Your task to perform on an android device: Search for the best selling phone on AliExpress Image 0: 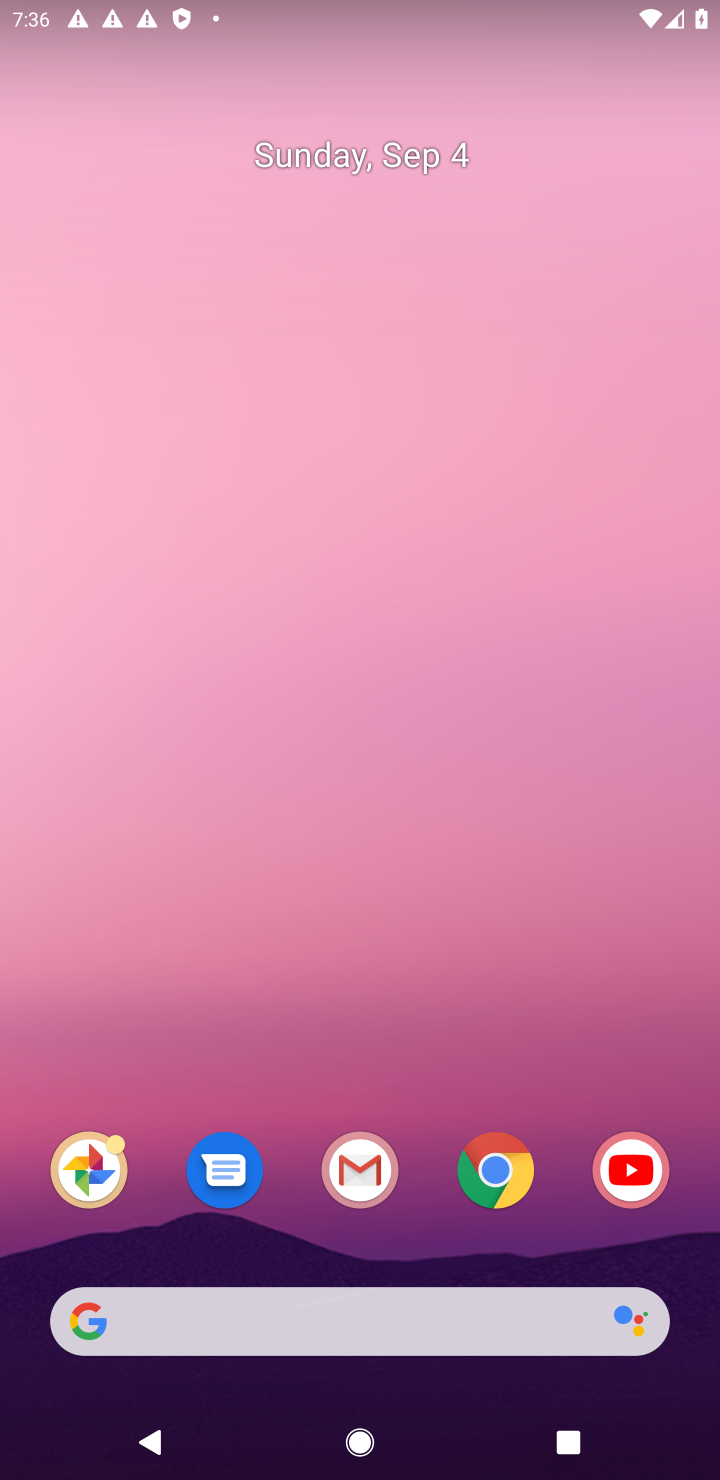
Step 0: click (476, 1183)
Your task to perform on an android device: Search for the best selling phone on AliExpress Image 1: 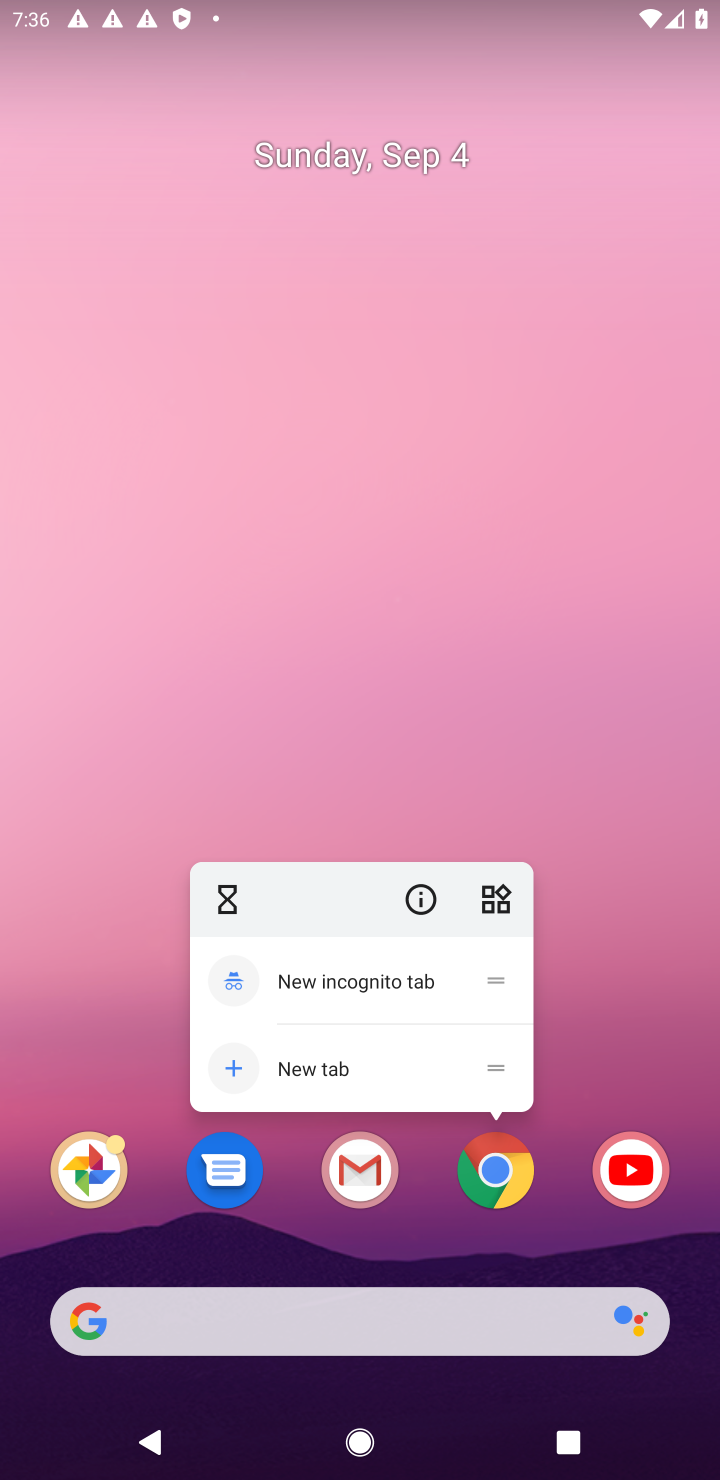
Step 1: click (473, 1149)
Your task to perform on an android device: Search for the best selling phone on AliExpress Image 2: 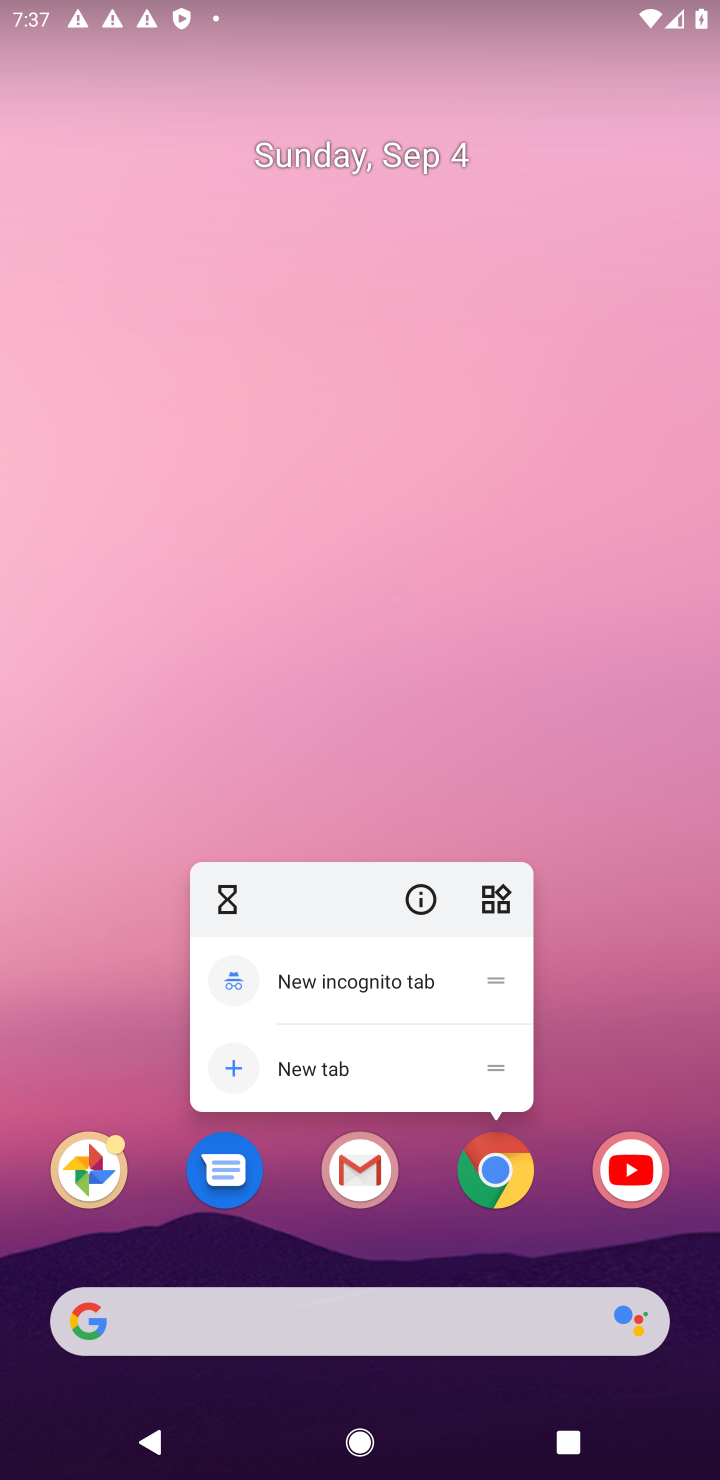
Step 2: click (473, 1149)
Your task to perform on an android device: Search for the best selling phone on AliExpress Image 3: 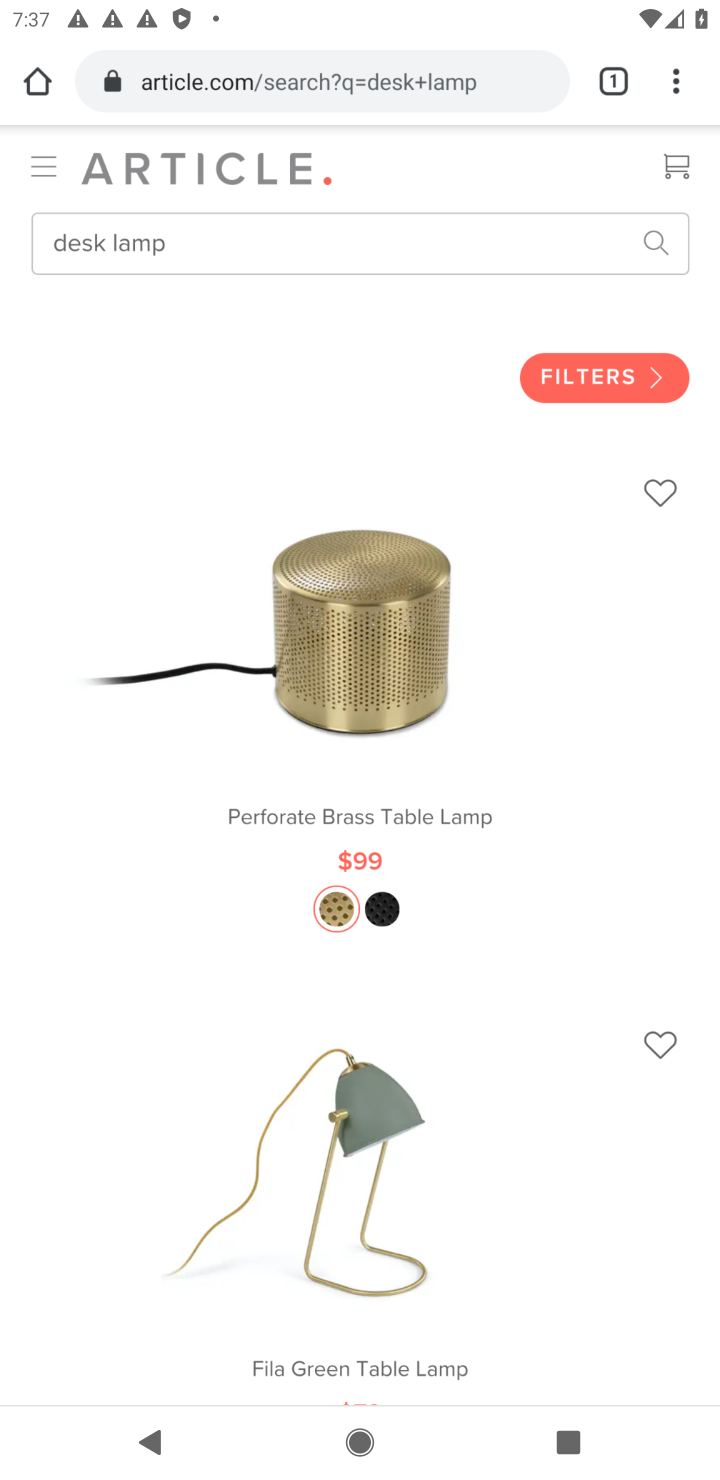
Step 3: click (473, 1149)
Your task to perform on an android device: Search for the best selling phone on AliExpress Image 4: 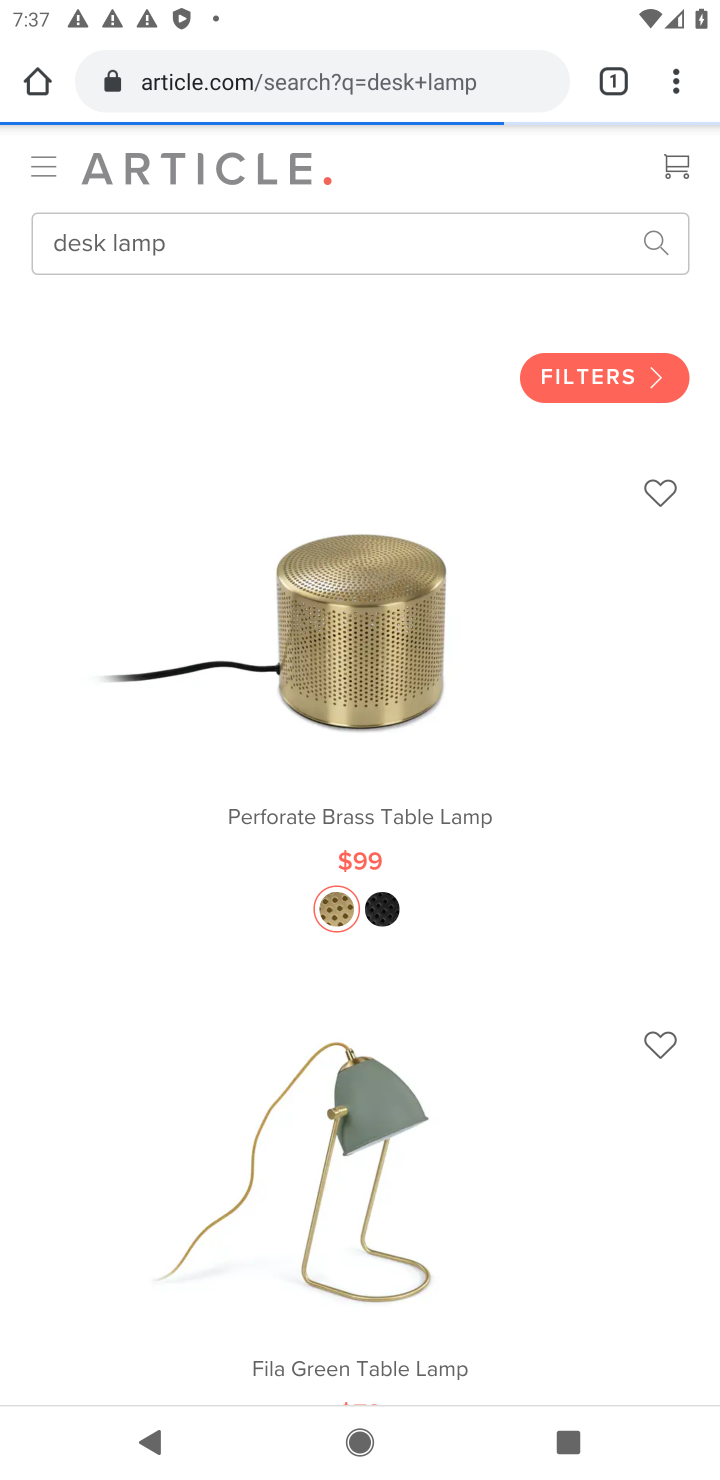
Step 4: click (356, 87)
Your task to perform on an android device: Search for the best selling phone on AliExpress Image 5: 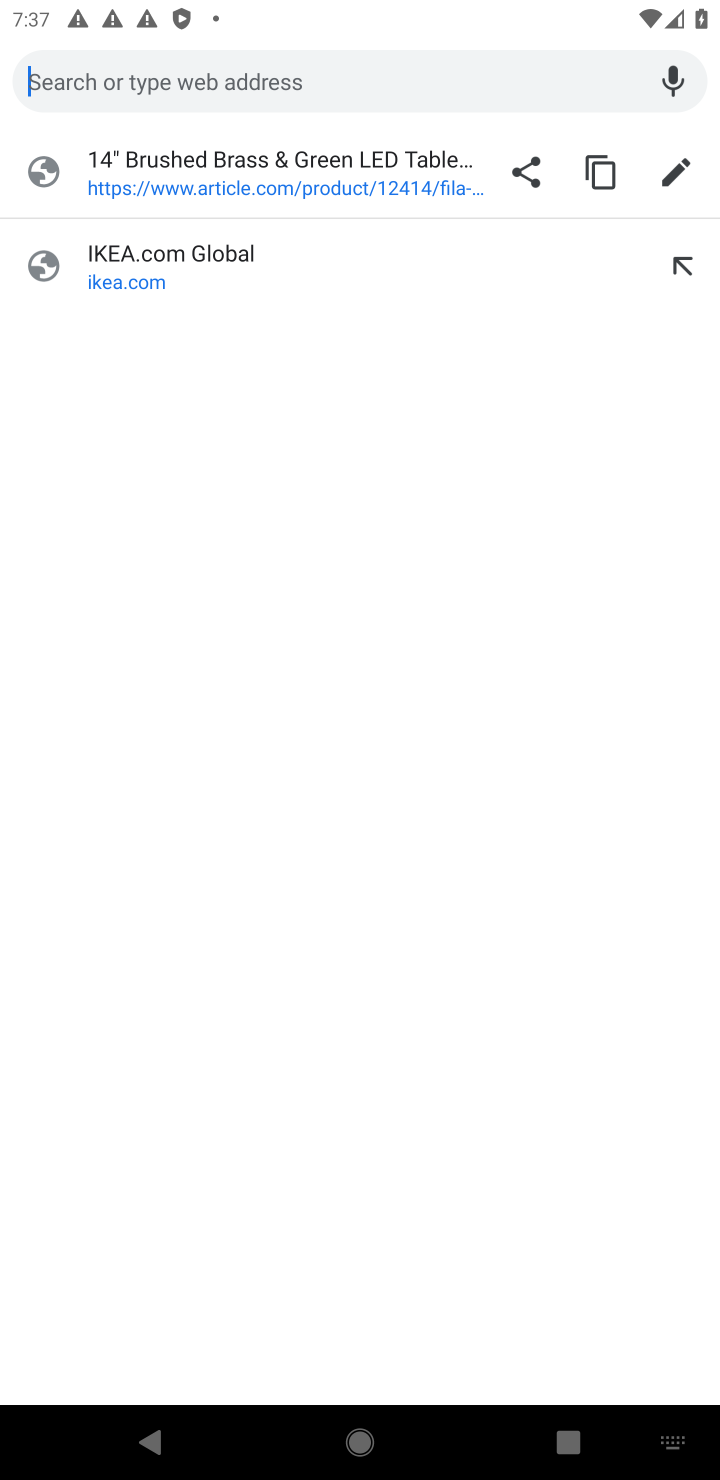
Step 5: type "AliExpress"
Your task to perform on an android device: Search for the best selling phone on AliExpress Image 6: 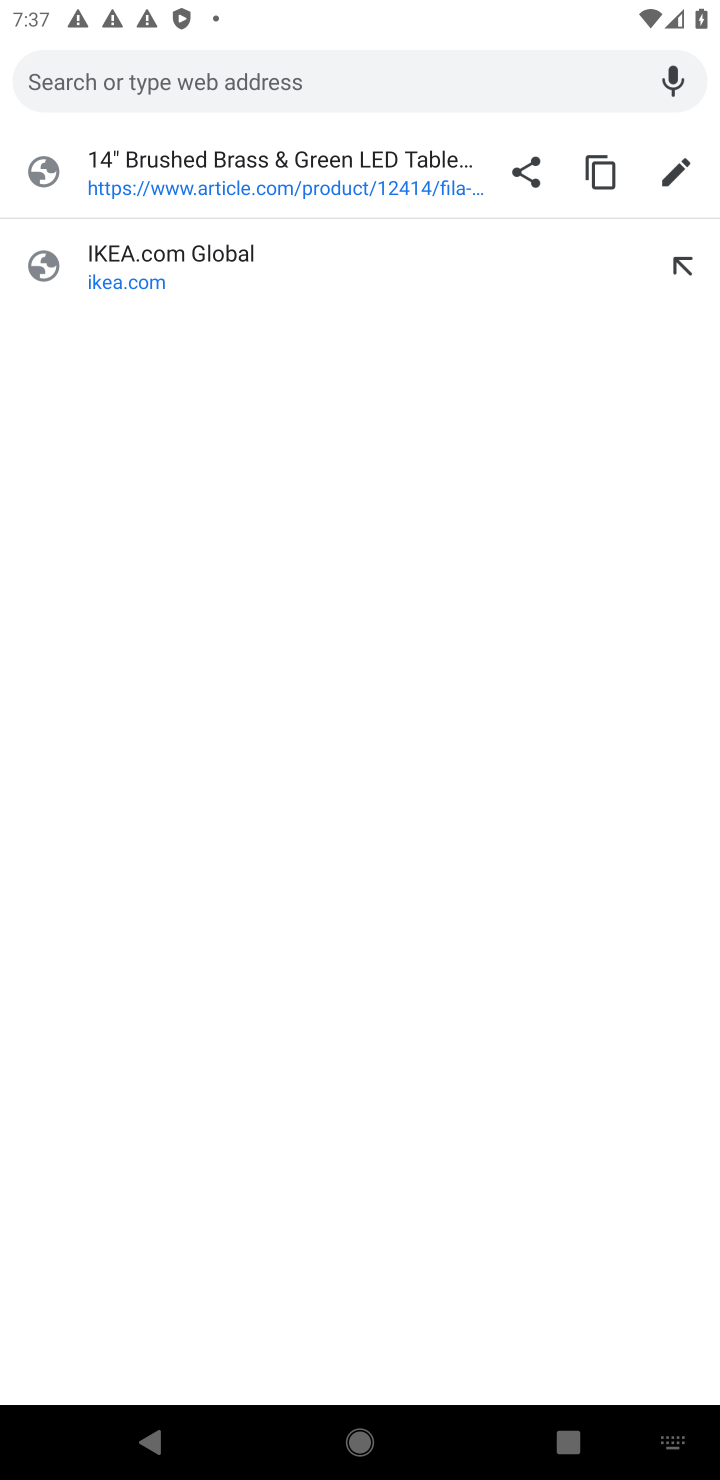
Step 6: click (537, 81)
Your task to perform on an android device: Search for the best selling phone on AliExpress Image 7: 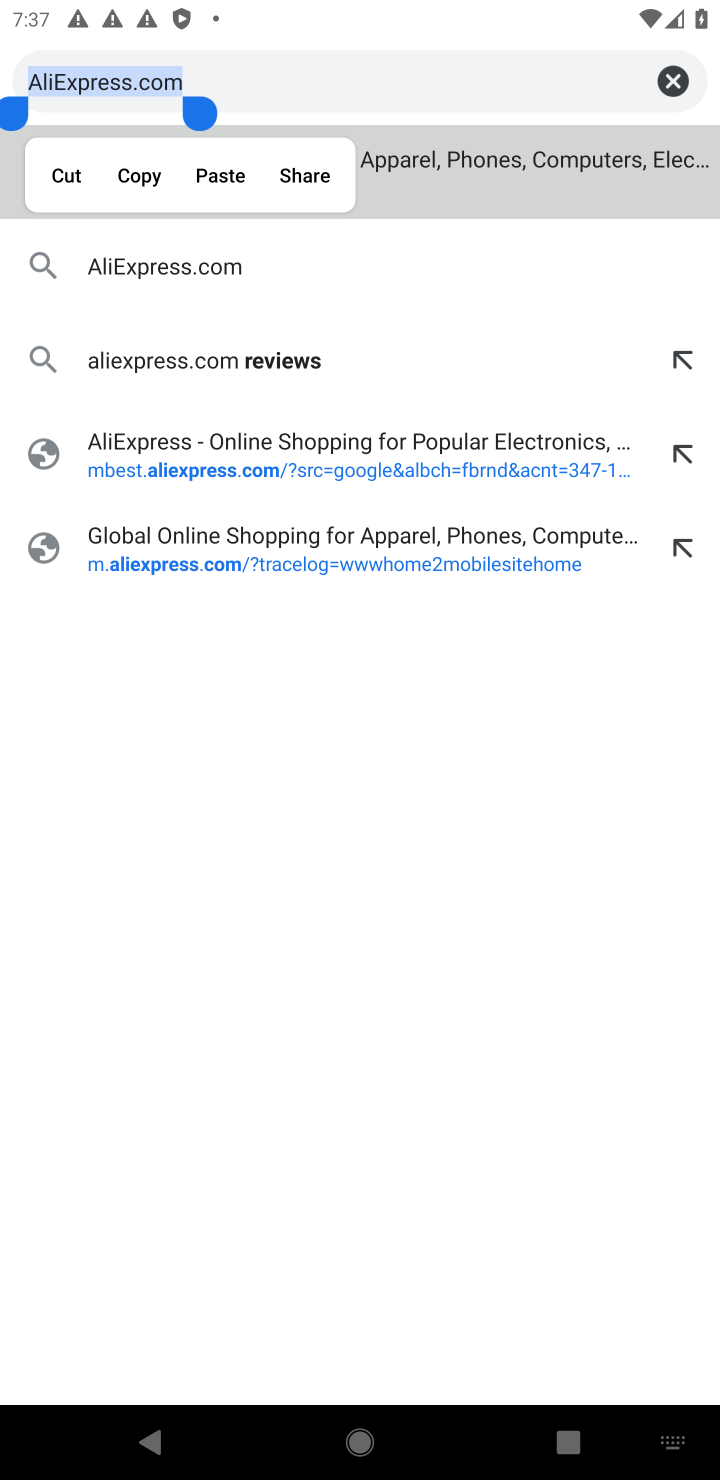
Step 7: click (234, 262)
Your task to perform on an android device: Search for the best selling phone on AliExpress Image 8: 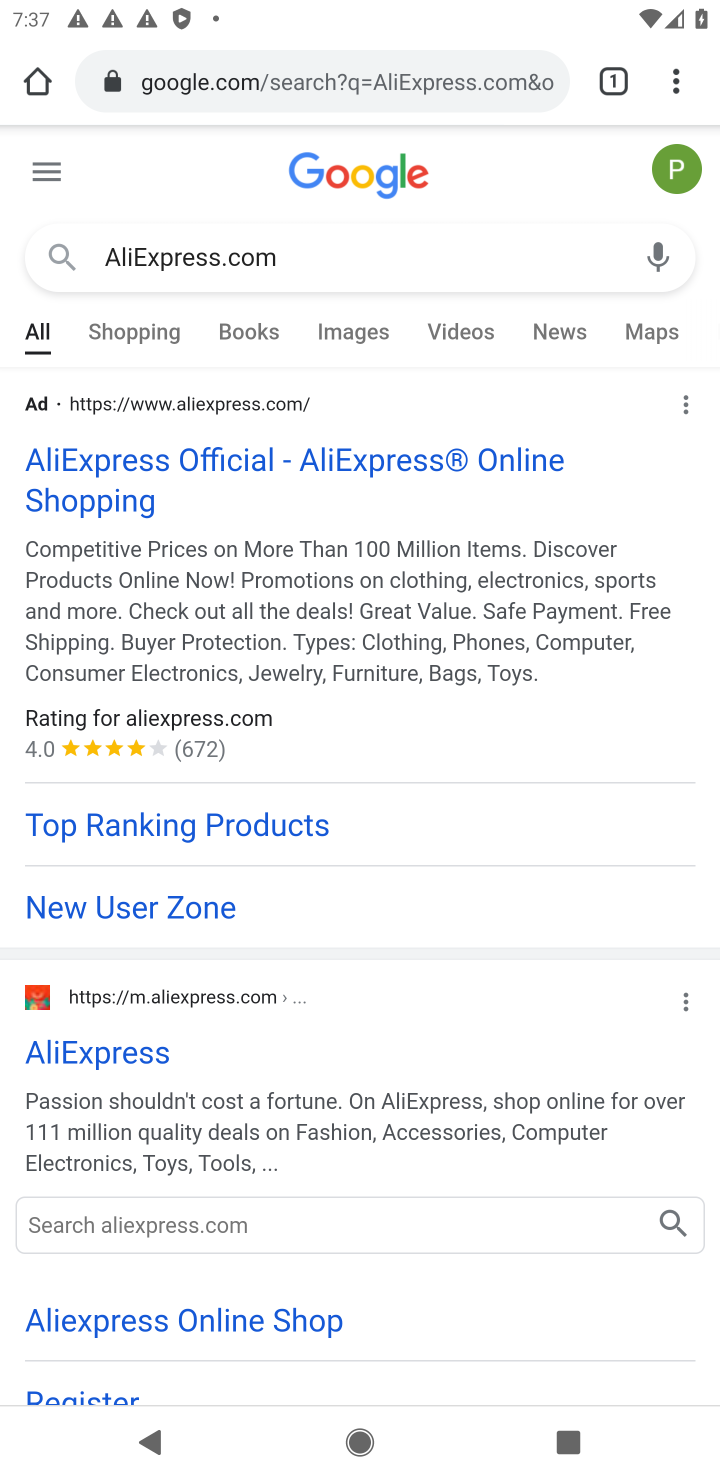
Step 8: click (105, 495)
Your task to perform on an android device: Search for the best selling phone on AliExpress Image 9: 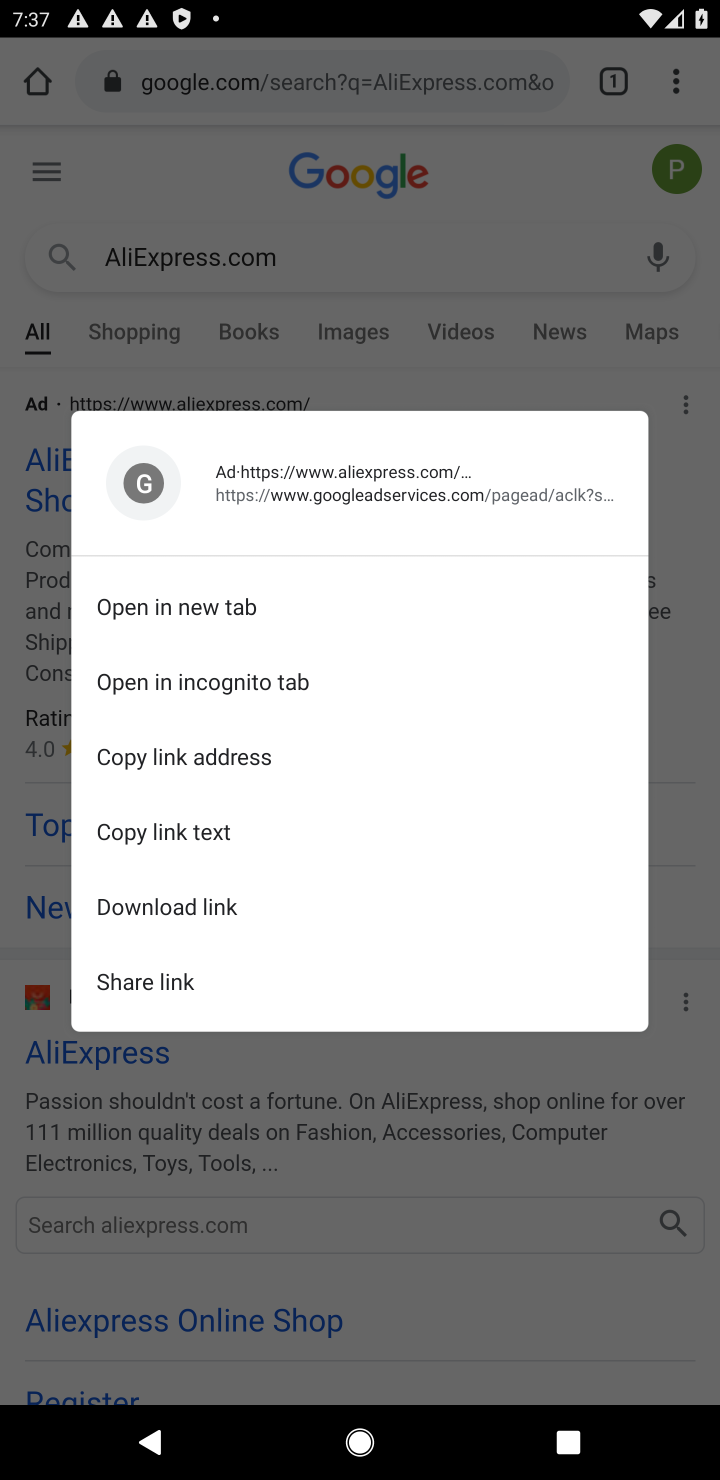
Step 9: click (39, 474)
Your task to perform on an android device: Search for the best selling phone on AliExpress Image 10: 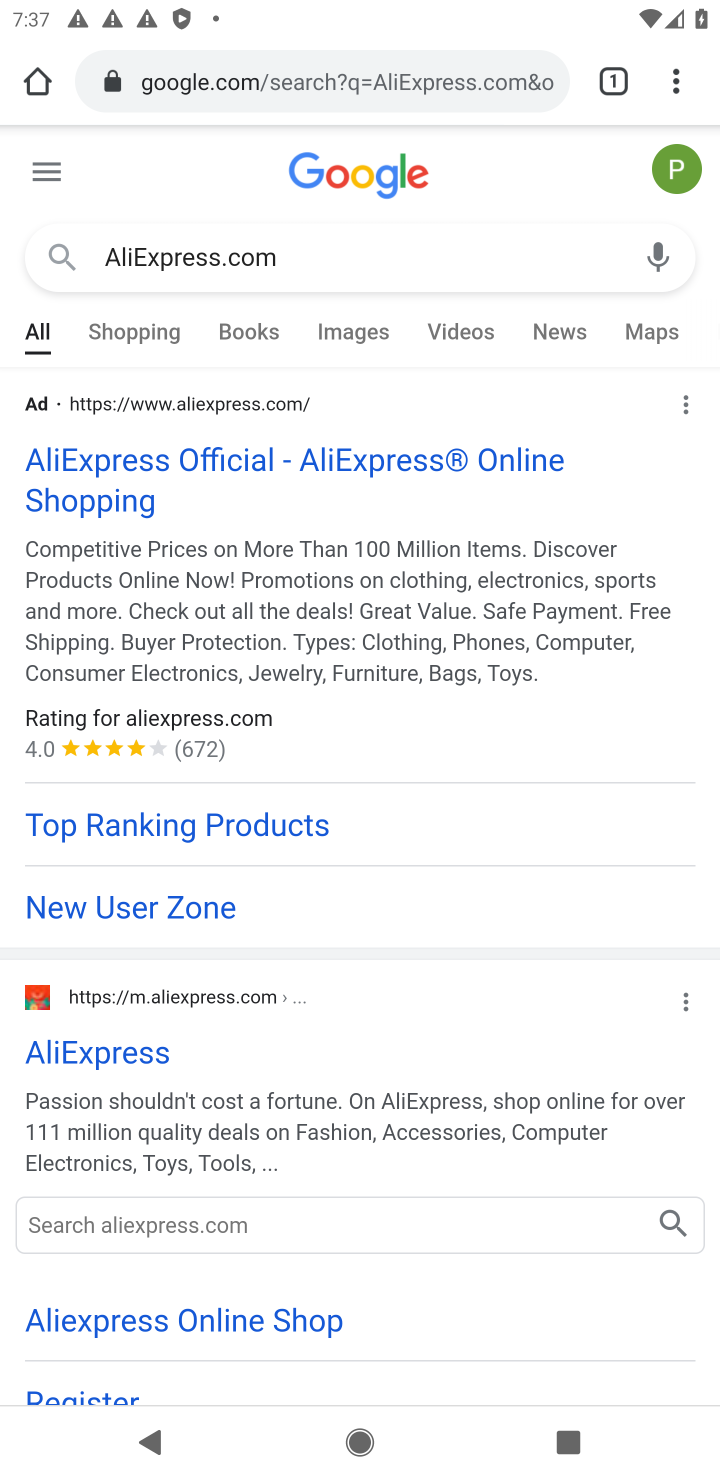
Step 10: click (149, 487)
Your task to perform on an android device: Search for the best selling phone on AliExpress Image 11: 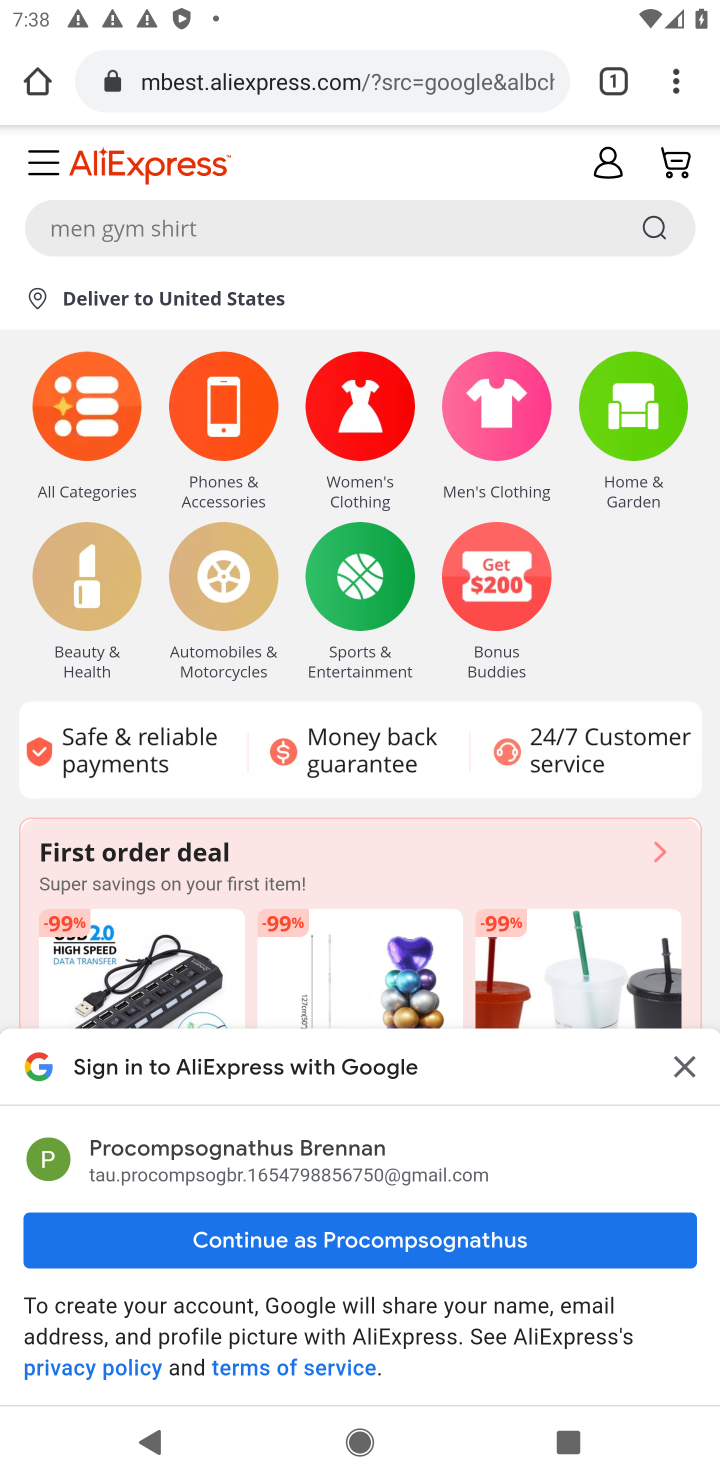
Step 11: type "the best selling phone"
Your task to perform on an android device: Search for the best selling phone on AliExpress Image 12: 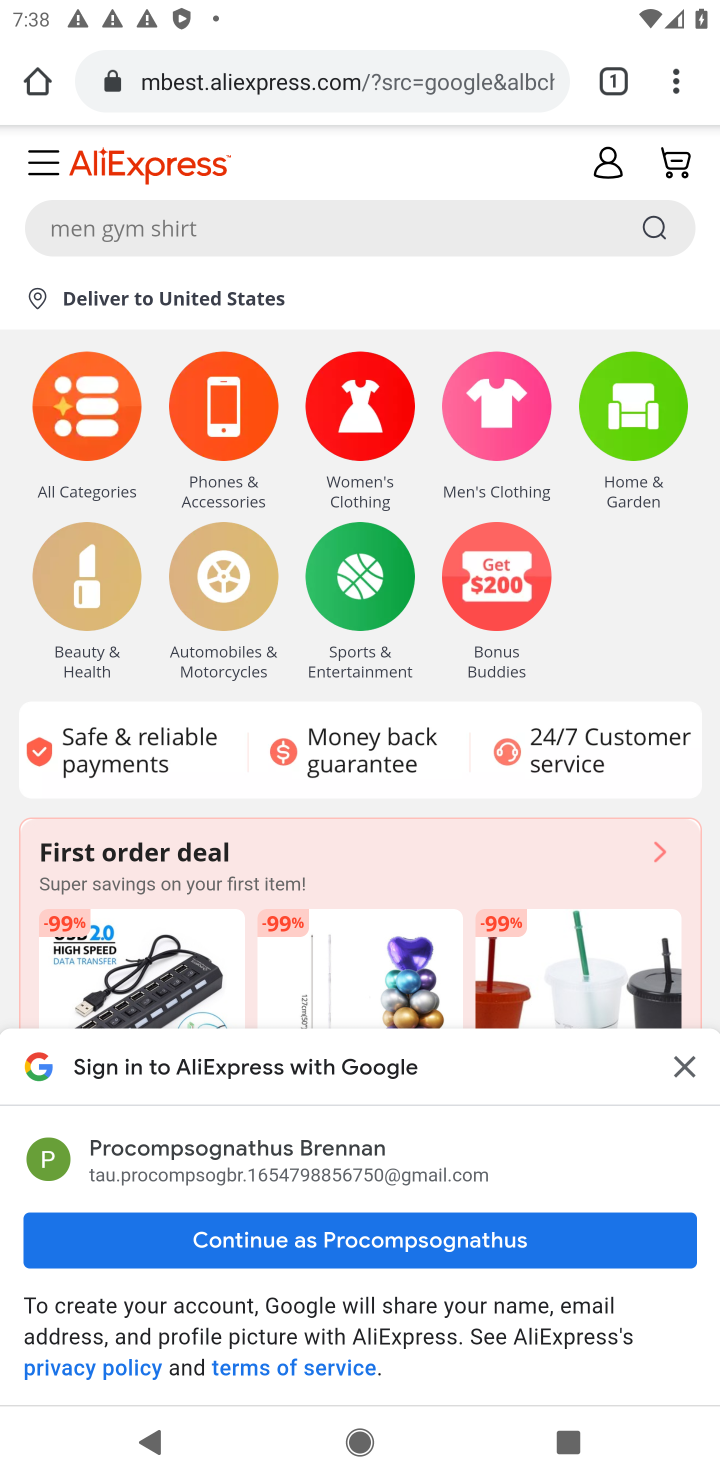
Step 12: click (75, 217)
Your task to perform on an android device: Search for the best selling phone on AliExpress Image 13: 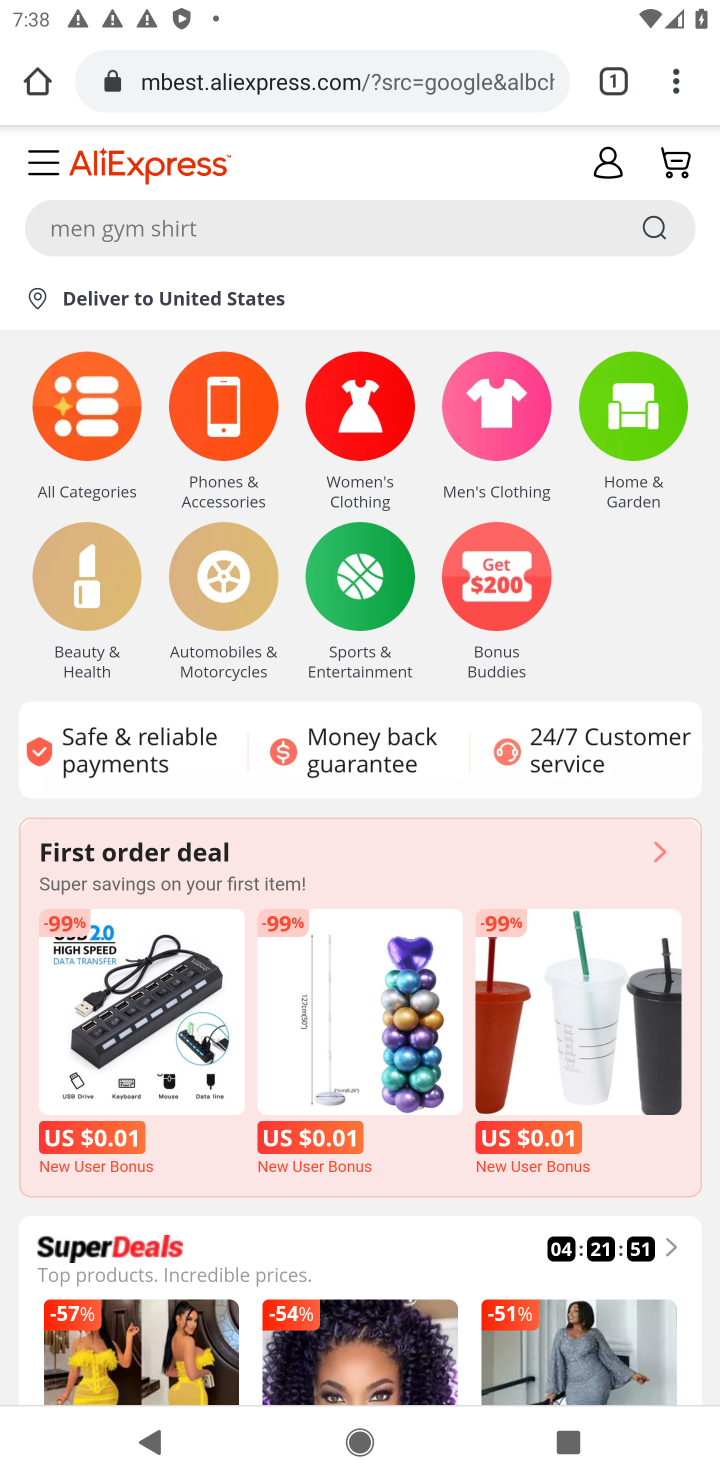
Step 13: click (149, 222)
Your task to perform on an android device: Search for the best selling phone on AliExpress Image 14: 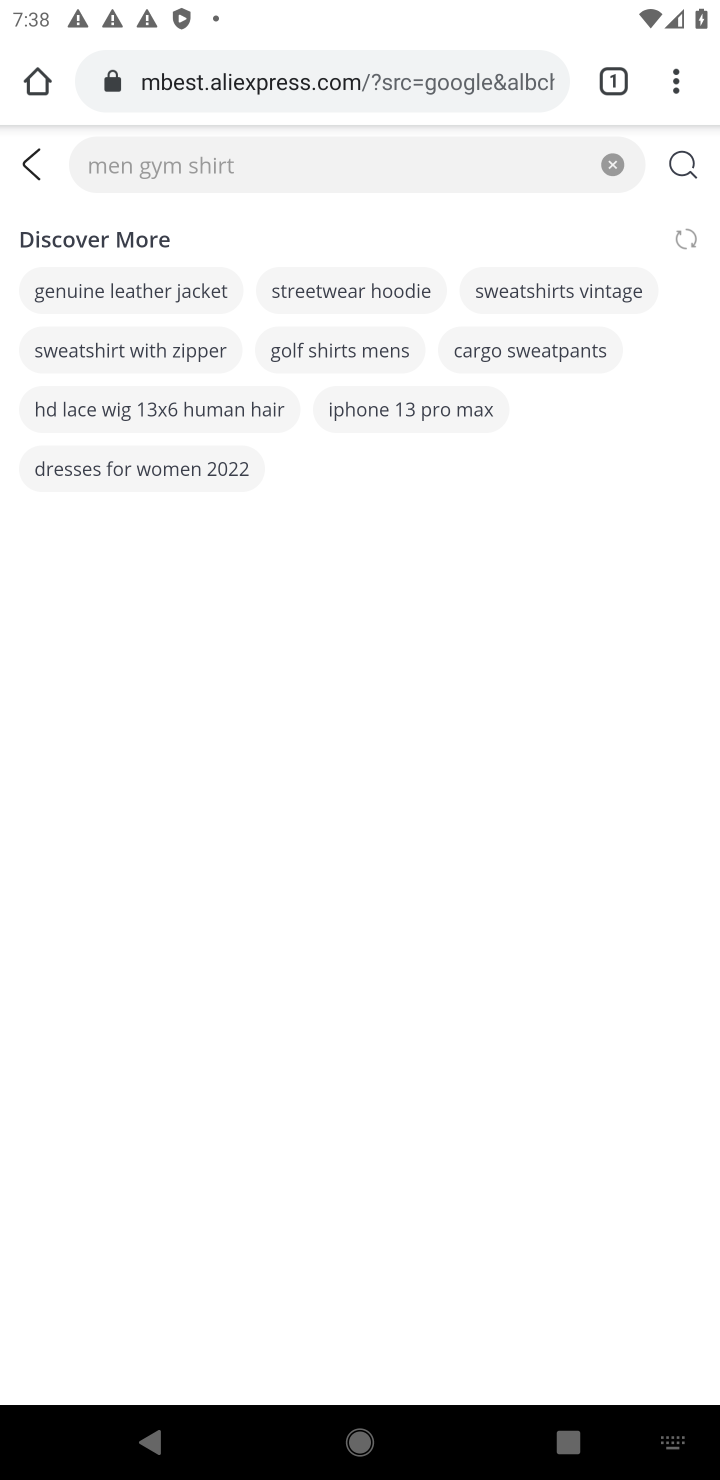
Step 14: click (149, 222)
Your task to perform on an android device: Search for the best selling phone on AliExpress Image 15: 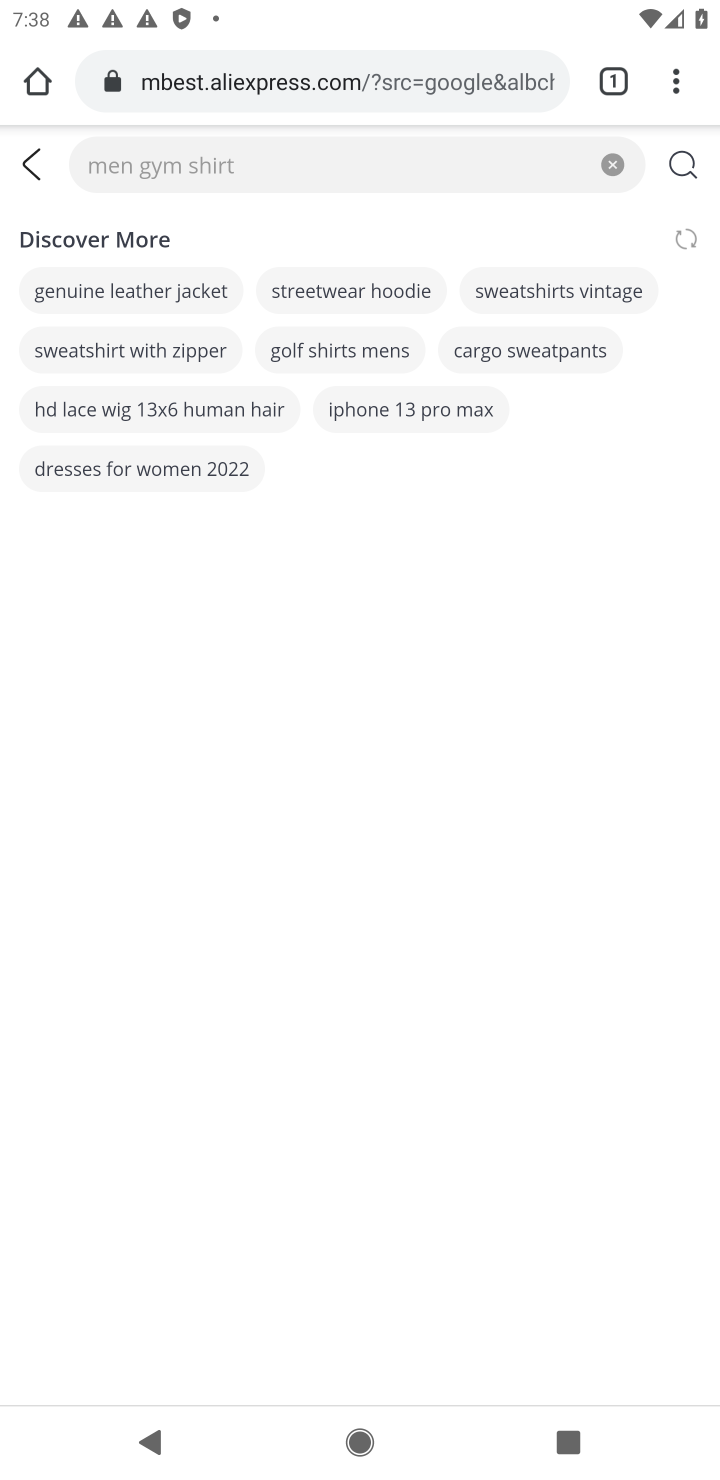
Step 15: type "the best selling phone"
Your task to perform on an android device: Search for the best selling phone on AliExpress Image 16: 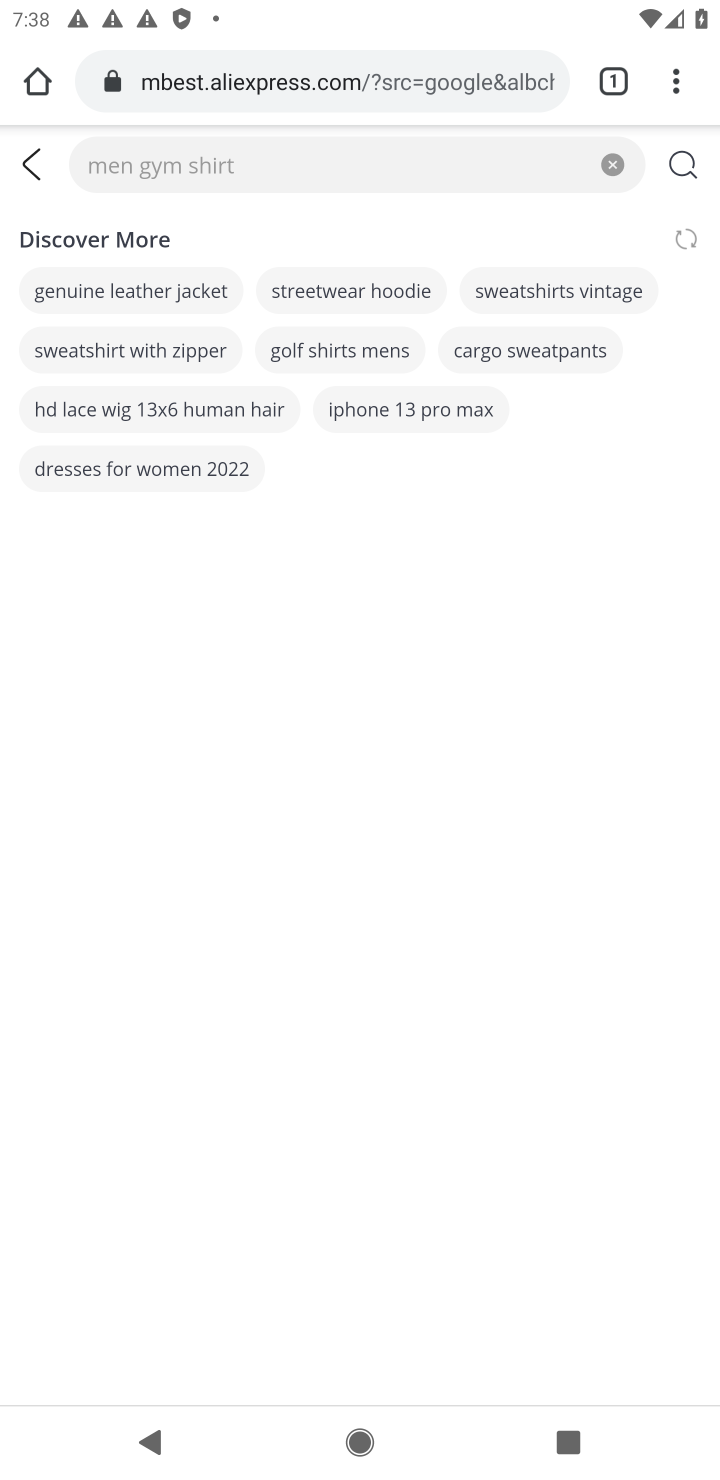
Step 16: click (390, 152)
Your task to perform on an android device: Search for the best selling phone on AliExpress Image 17: 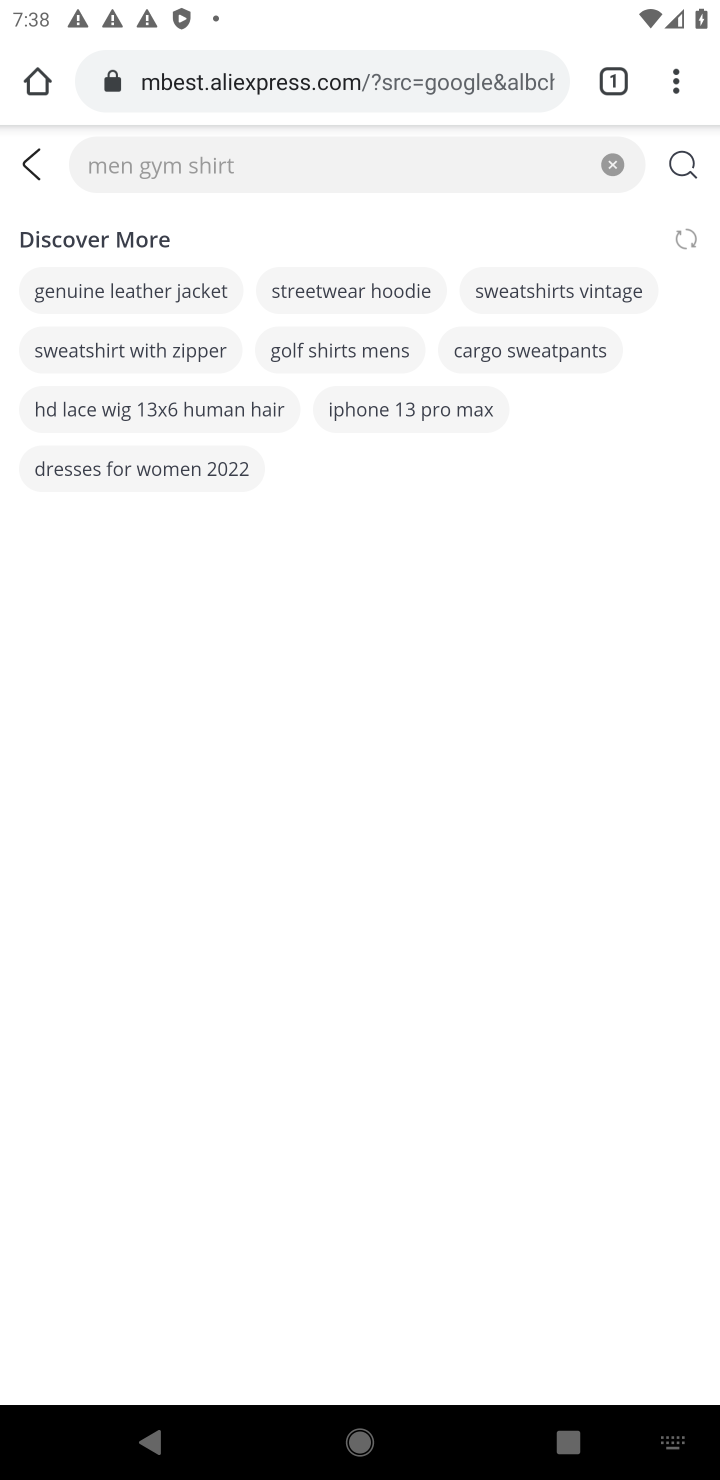
Step 17: type "the best selling phone"
Your task to perform on an android device: Search for the best selling phone on AliExpress Image 18: 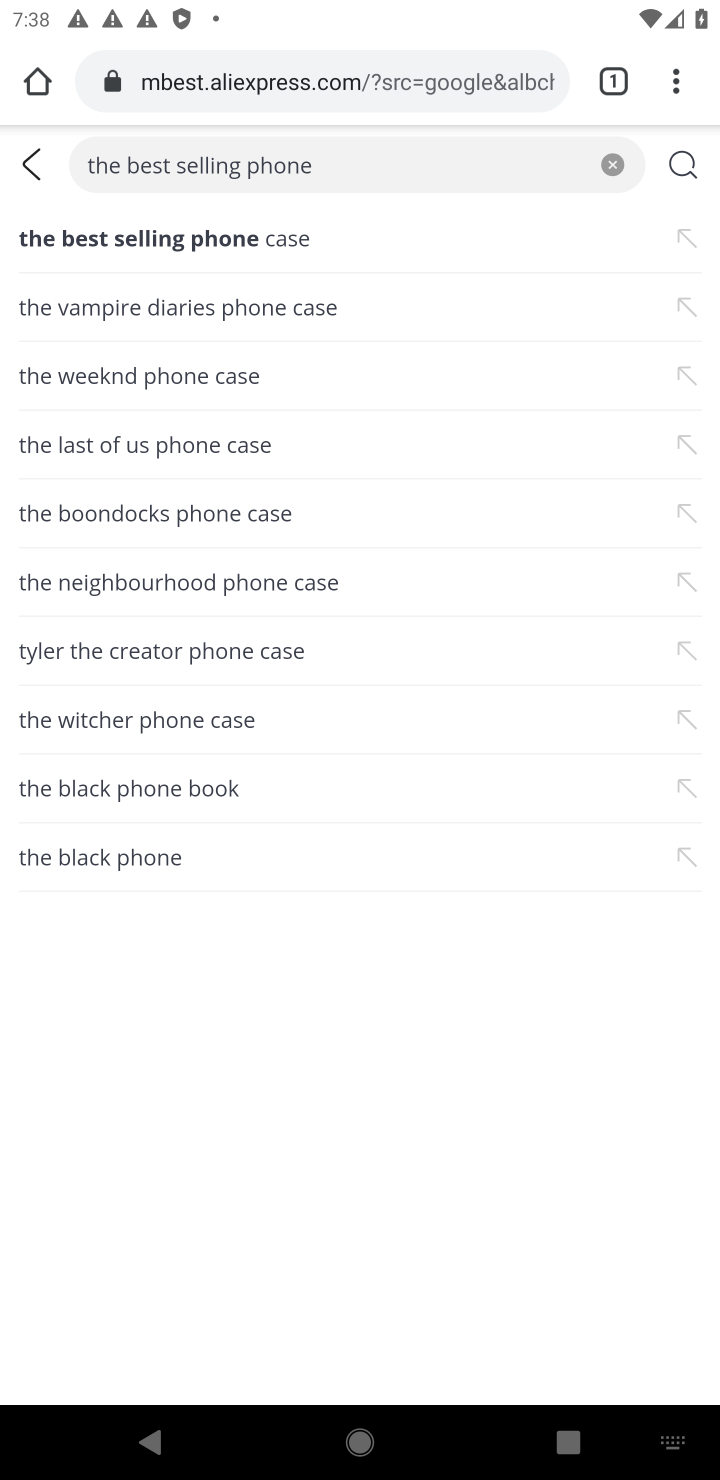
Step 18: click (668, 153)
Your task to perform on an android device: Search for the best selling phone on AliExpress Image 19: 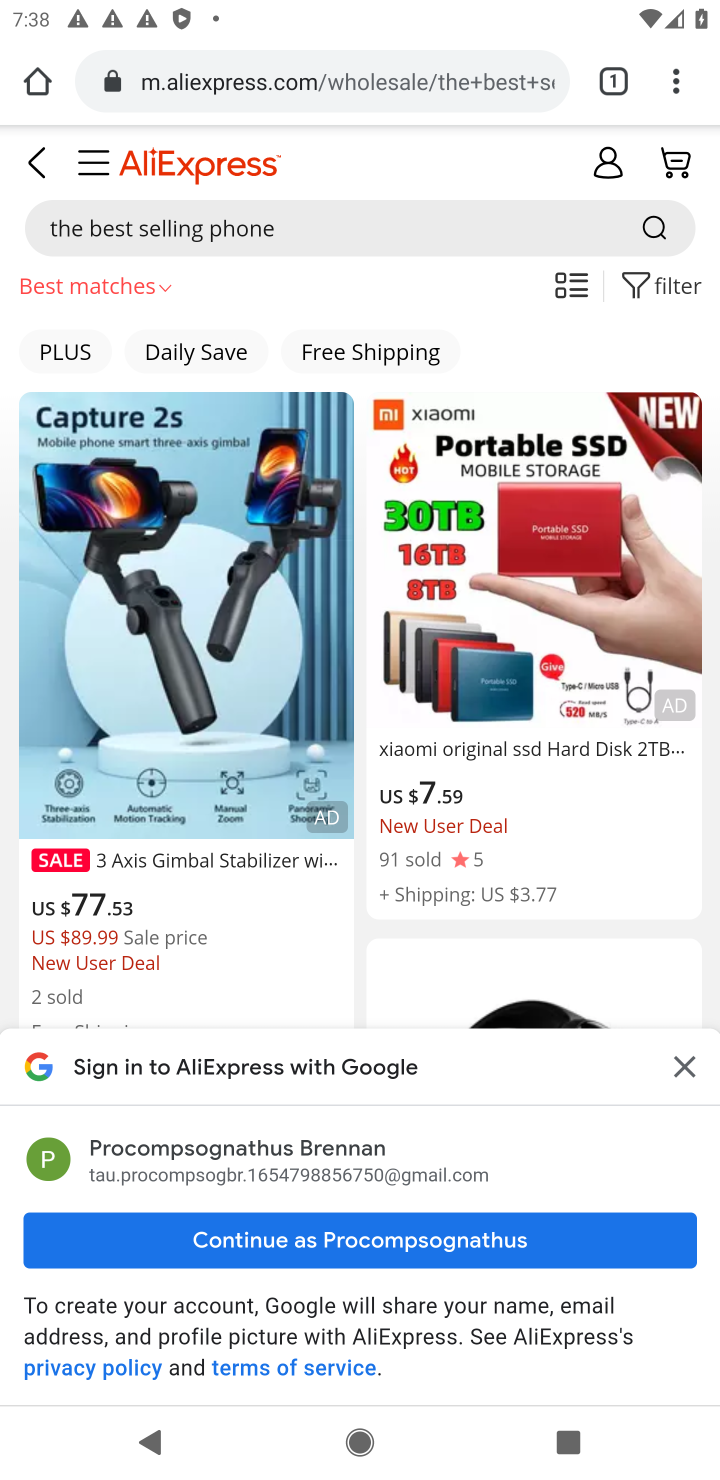
Step 19: task complete